Your task to perform on an android device: turn off location Image 0: 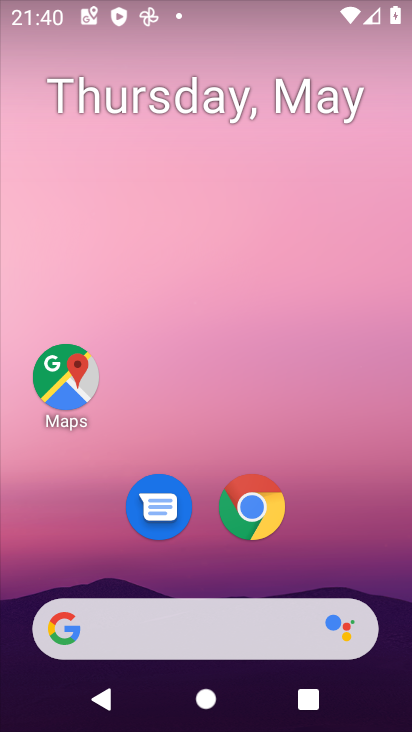
Step 0: drag from (299, 652) to (212, 236)
Your task to perform on an android device: turn off location Image 1: 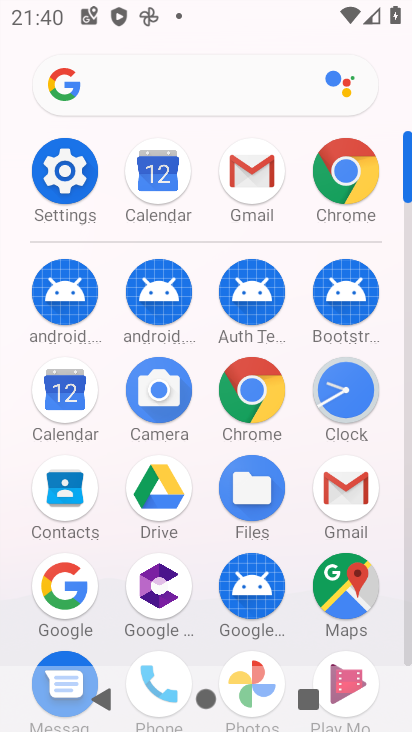
Step 1: click (71, 192)
Your task to perform on an android device: turn off location Image 2: 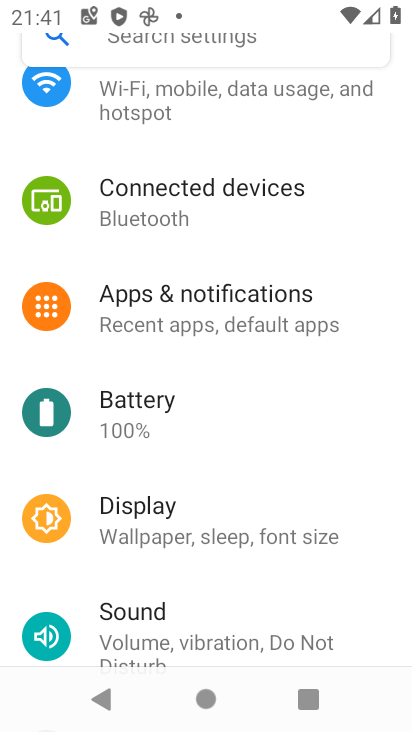
Step 2: click (173, 39)
Your task to perform on an android device: turn off location Image 3: 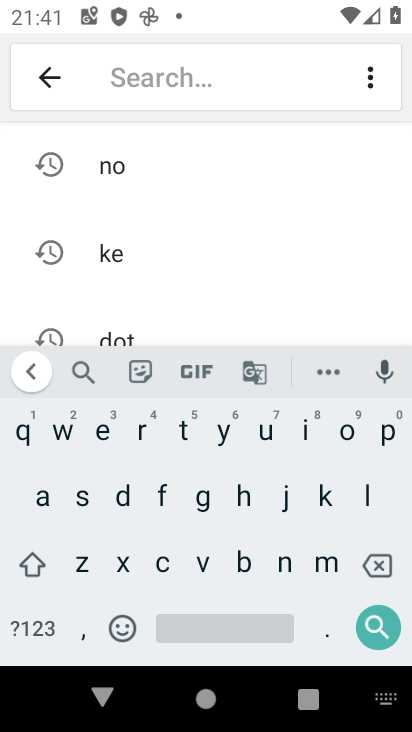
Step 3: click (366, 504)
Your task to perform on an android device: turn off location Image 4: 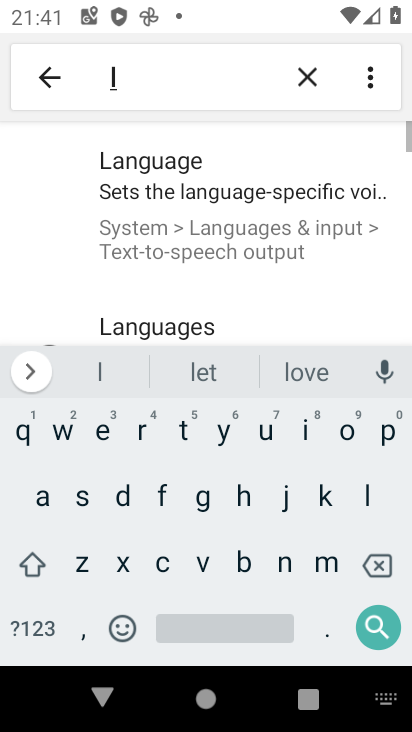
Step 4: click (338, 440)
Your task to perform on an android device: turn off location Image 5: 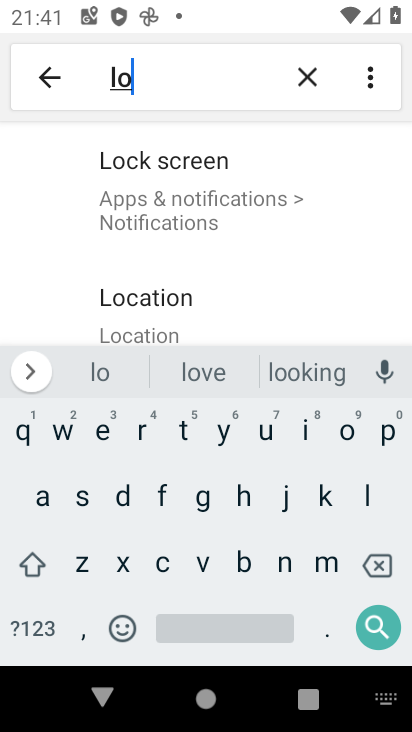
Step 5: click (175, 311)
Your task to perform on an android device: turn off location Image 6: 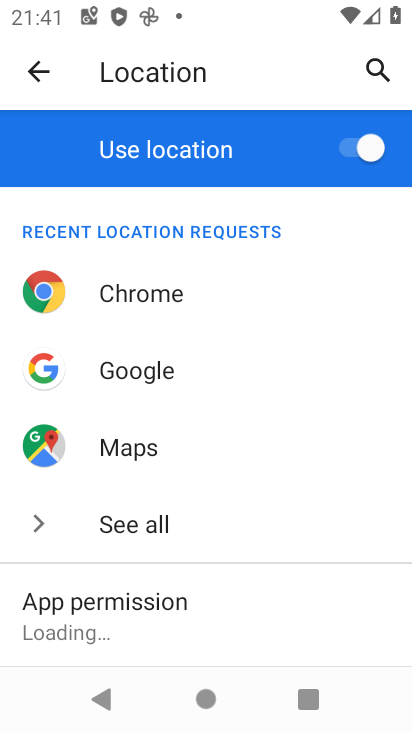
Step 6: click (360, 141)
Your task to perform on an android device: turn off location Image 7: 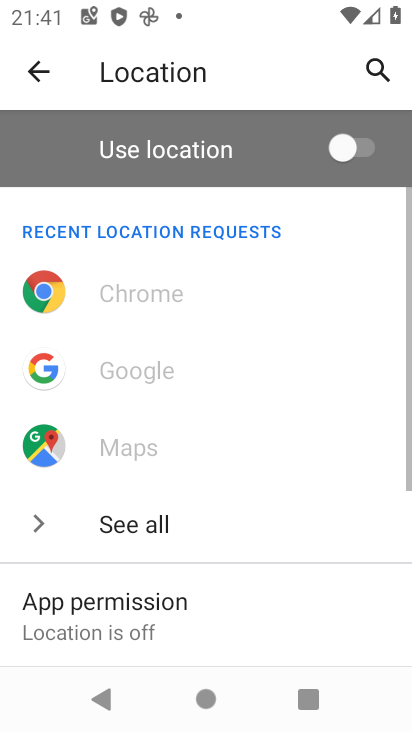
Step 7: task complete